Your task to perform on an android device: Open Wikipedia Image 0: 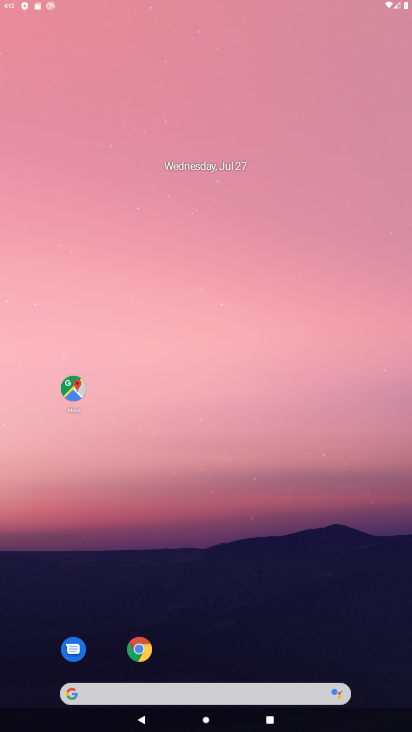
Step 0: press home button
Your task to perform on an android device: Open Wikipedia Image 1: 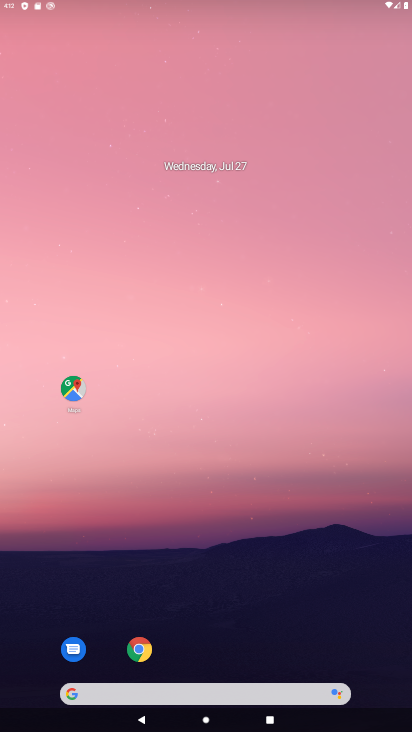
Step 1: drag from (181, 522) to (227, 32)
Your task to perform on an android device: Open Wikipedia Image 2: 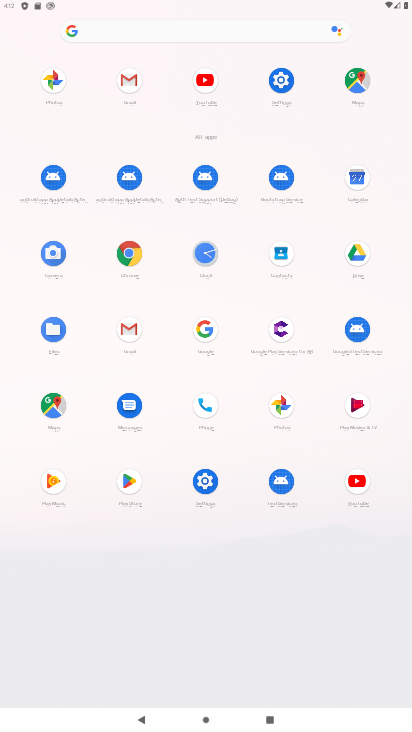
Step 2: click (127, 267)
Your task to perform on an android device: Open Wikipedia Image 3: 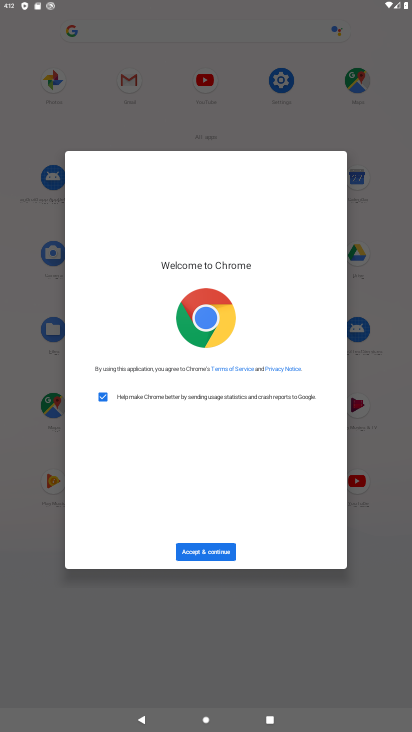
Step 3: click (208, 544)
Your task to perform on an android device: Open Wikipedia Image 4: 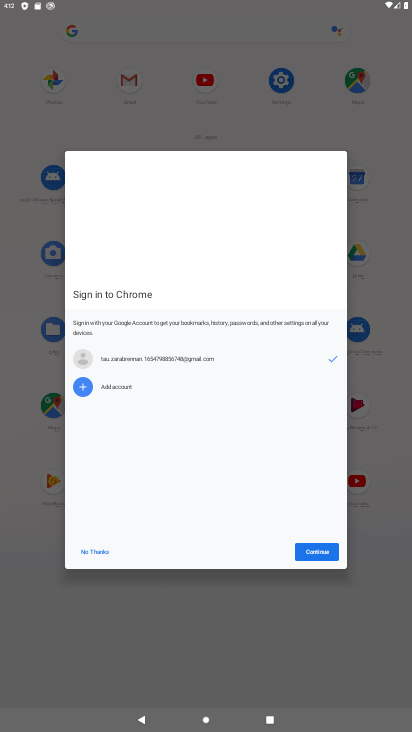
Step 4: click (316, 544)
Your task to perform on an android device: Open Wikipedia Image 5: 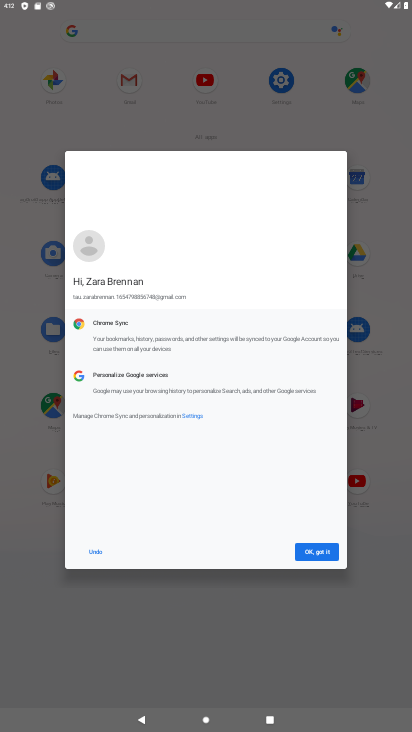
Step 5: click (316, 544)
Your task to perform on an android device: Open Wikipedia Image 6: 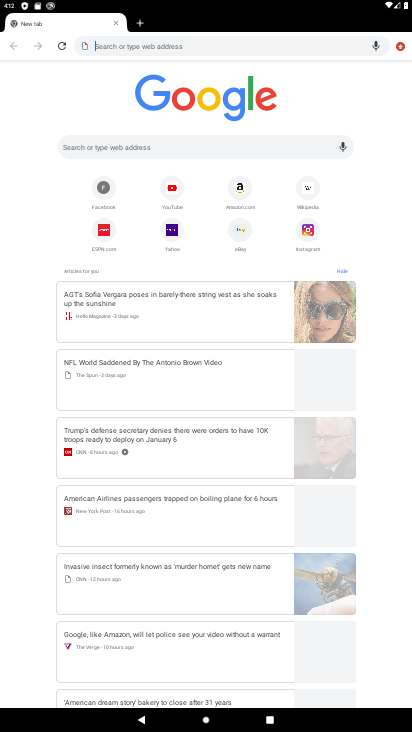
Step 6: click (306, 201)
Your task to perform on an android device: Open Wikipedia Image 7: 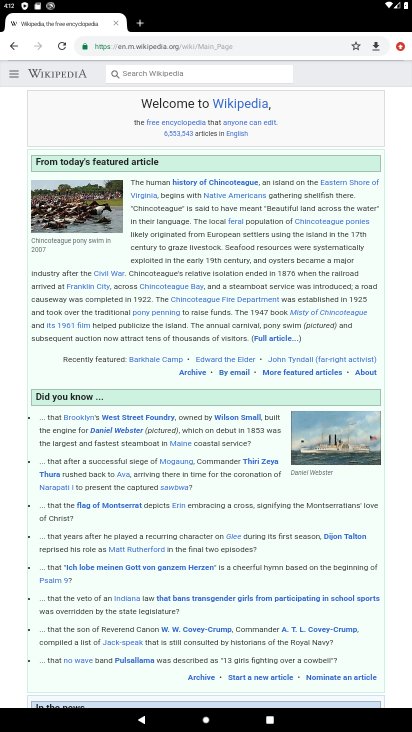
Step 7: task complete